Your task to perform on an android device: Open network settings Image 0: 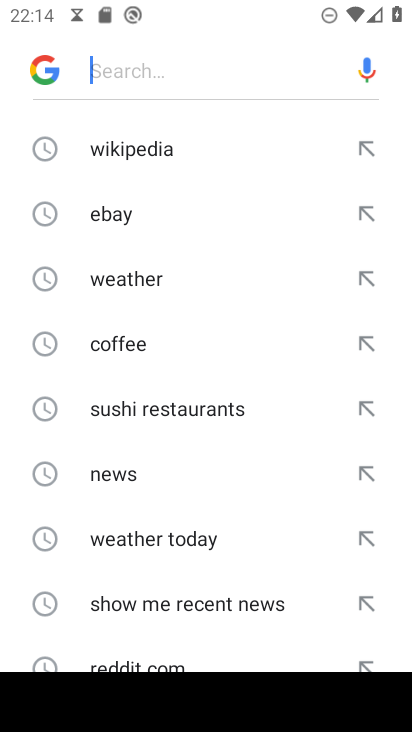
Step 0: press home button
Your task to perform on an android device: Open network settings Image 1: 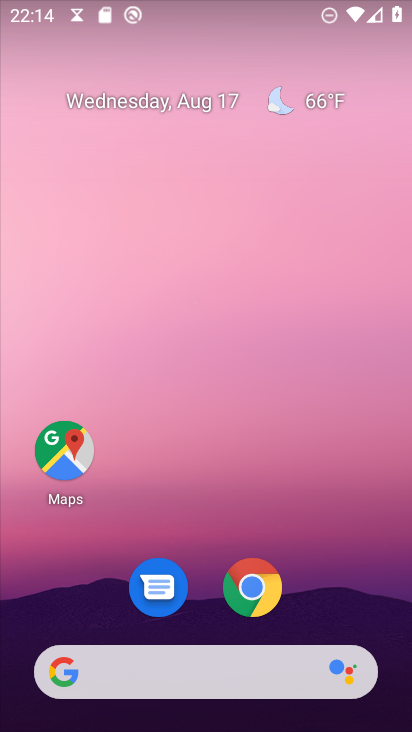
Step 1: drag from (8, 712) to (88, 120)
Your task to perform on an android device: Open network settings Image 2: 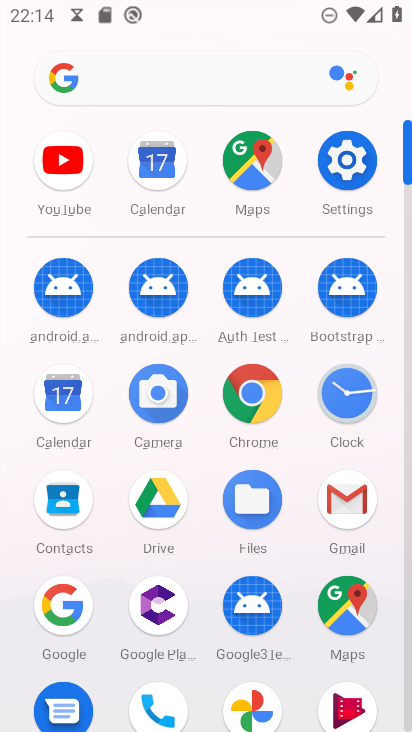
Step 2: click (343, 180)
Your task to perform on an android device: Open network settings Image 3: 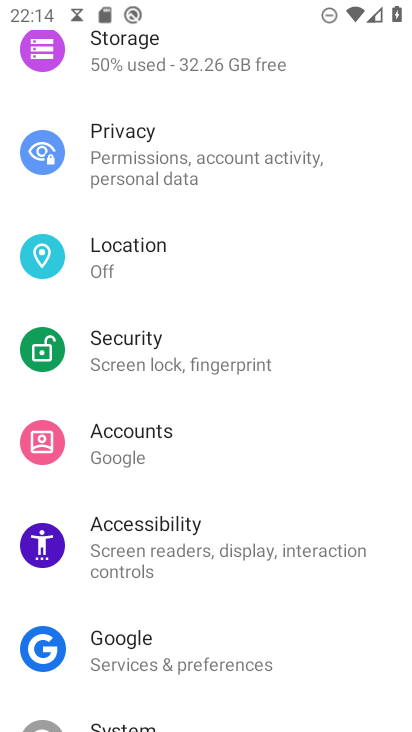
Step 3: drag from (305, 38) to (164, 712)
Your task to perform on an android device: Open network settings Image 4: 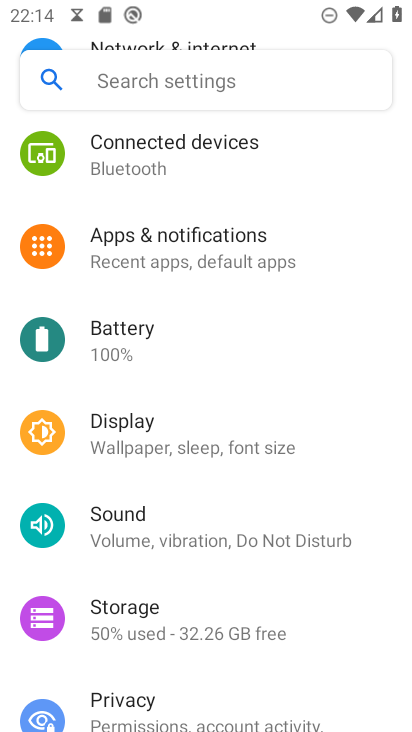
Step 4: drag from (305, 155) to (113, 722)
Your task to perform on an android device: Open network settings Image 5: 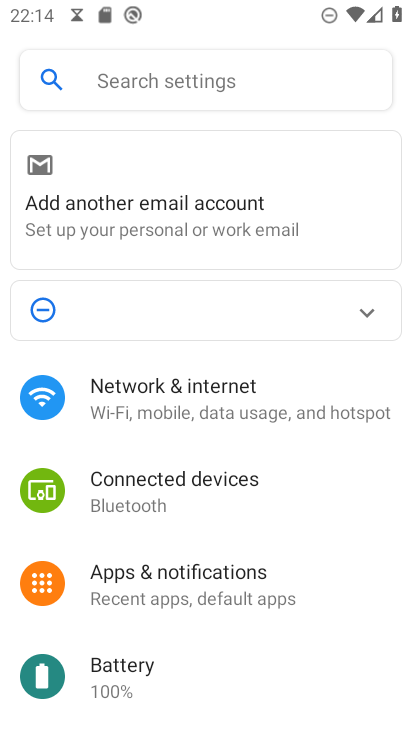
Step 5: click (152, 397)
Your task to perform on an android device: Open network settings Image 6: 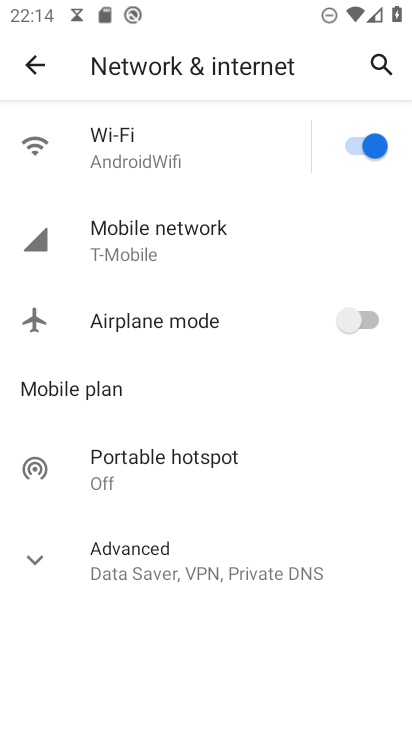
Step 6: task complete